Your task to perform on an android device: manage bookmarks in the chrome app Image 0: 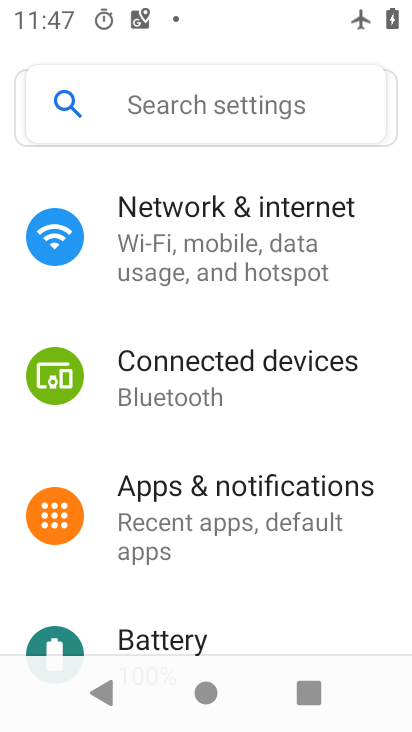
Step 0: press home button
Your task to perform on an android device: manage bookmarks in the chrome app Image 1: 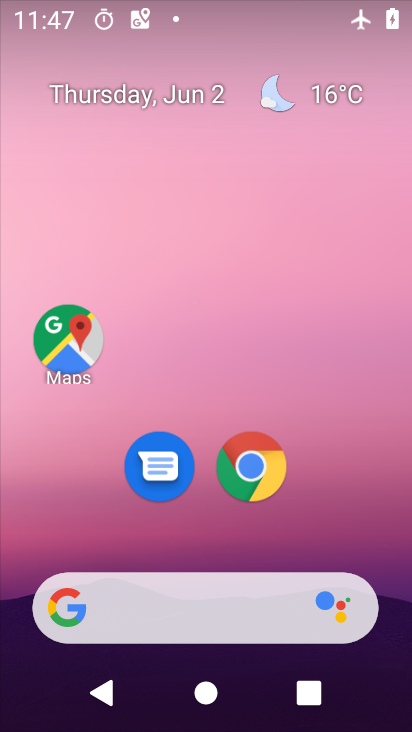
Step 1: click (249, 458)
Your task to perform on an android device: manage bookmarks in the chrome app Image 2: 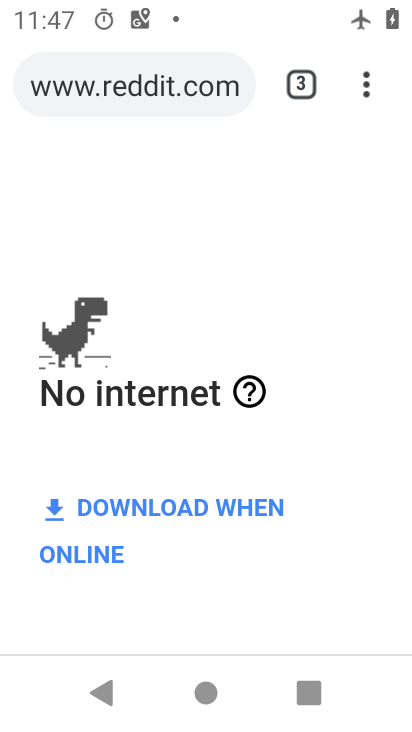
Step 2: drag from (363, 82) to (181, 326)
Your task to perform on an android device: manage bookmarks in the chrome app Image 3: 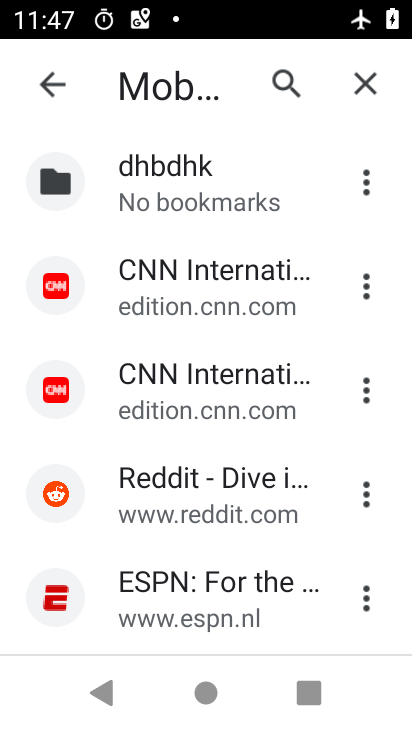
Step 3: click (361, 386)
Your task to perform on an android device: manage bookmarks in the chrome app Image 4: 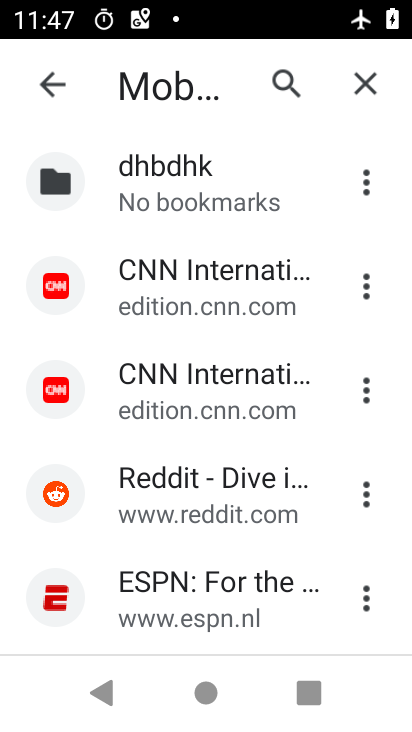
Step 4: click (362, 387)
Your task to perform on an android device: manage bookmarks in the chrome app Image 5: 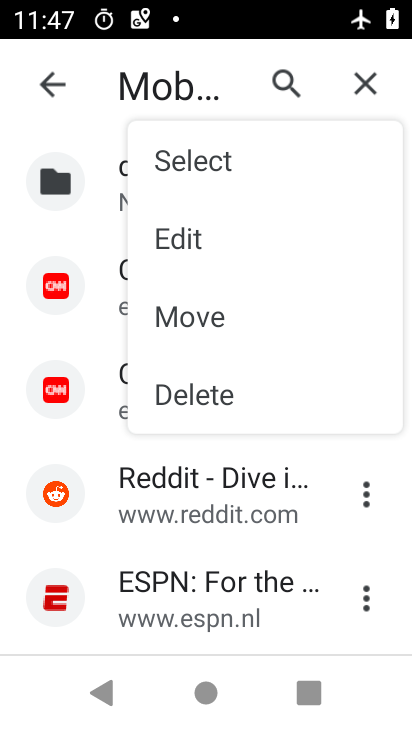
Step 5: click (362, 387)
Your task to perform on an android device: manage bookmarks in the chrome app Image 6: 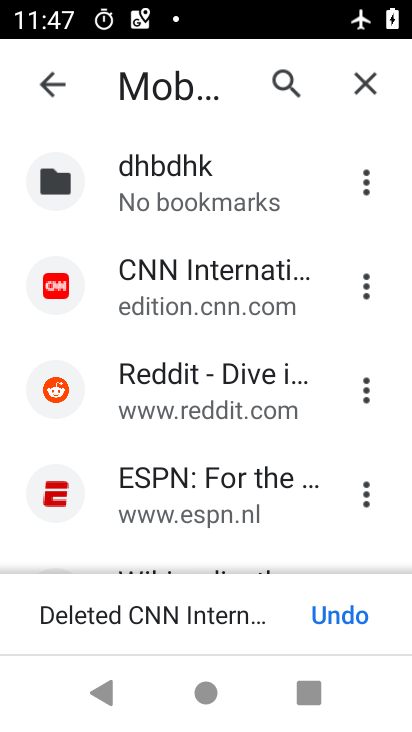
Step 6: task complete